Your task to perform on an android device: Do I have any events today? Image 0: 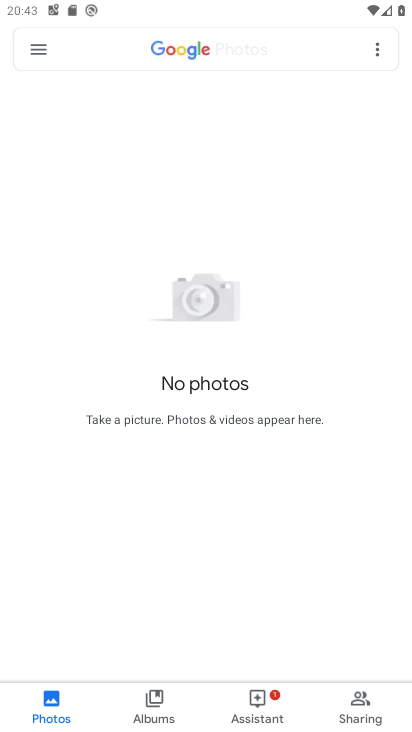
Step 0: press home button
Your task to perform on an android device: Do I have any events today? Image 1: 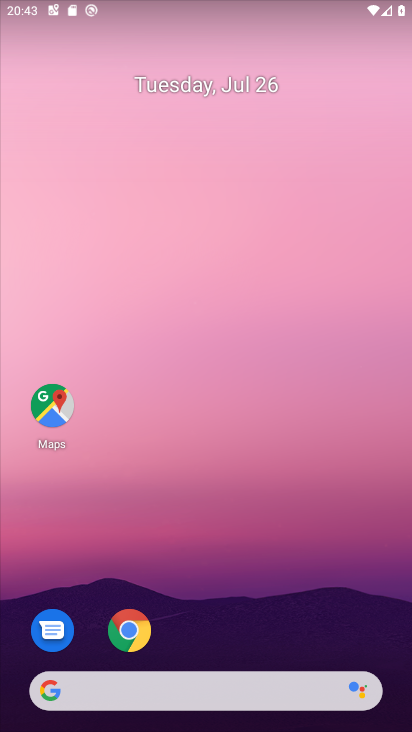
Step 1: drag from (389, 678) to (307, 65)
Your task to perform on an android device: Do I have any events today? Image 2: 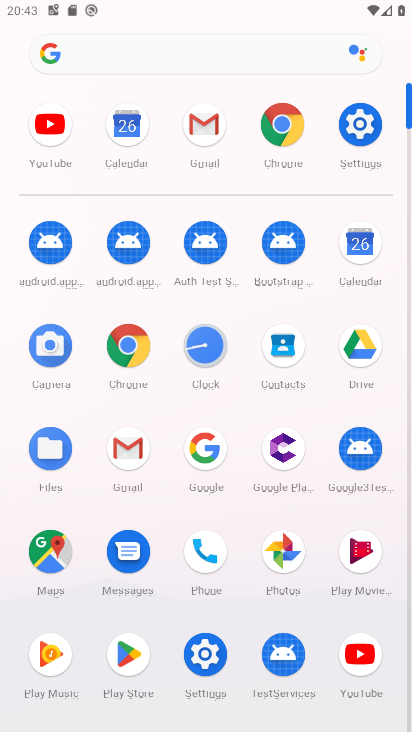
Step 2: click (361, 249)
Your task to perform on an android device: Do I have any events today? Image 3: 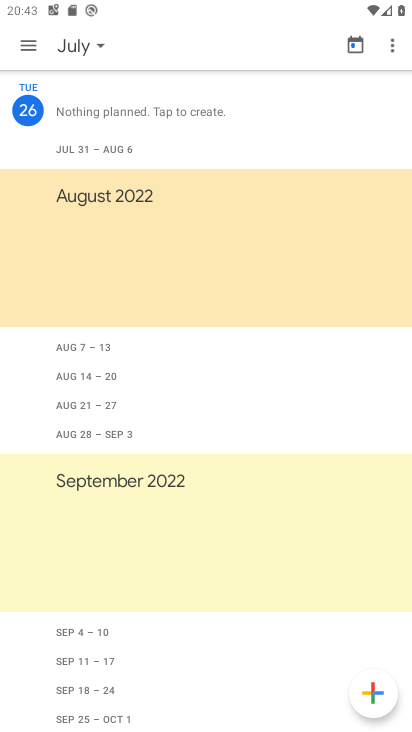
Step 3: click (28, 41)
Your task to perform on an android device: Do I have any events today? Image 4: 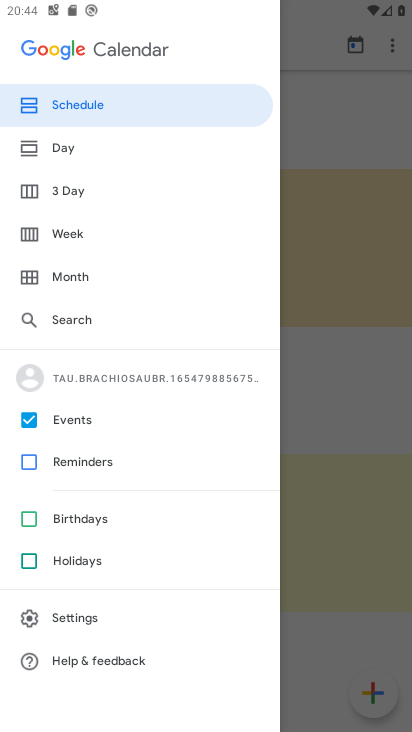
Step 4: click (52, 142)
Your task to perform on an android device: Do I have any events today? Image 5: 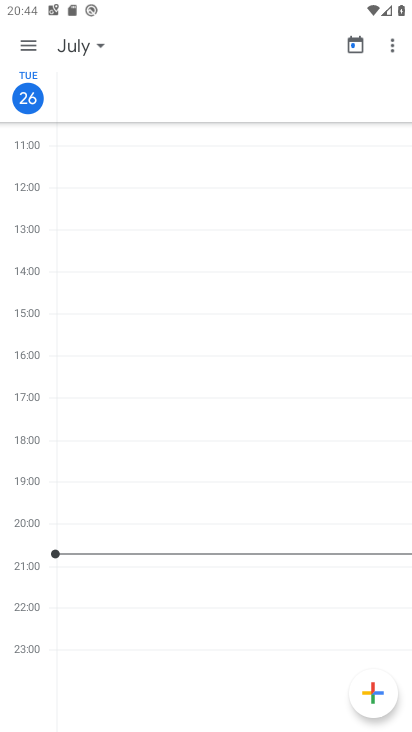
Step 5: click (31, 36)
Your task to perform on an android device: Do I have any events today? Image 6: 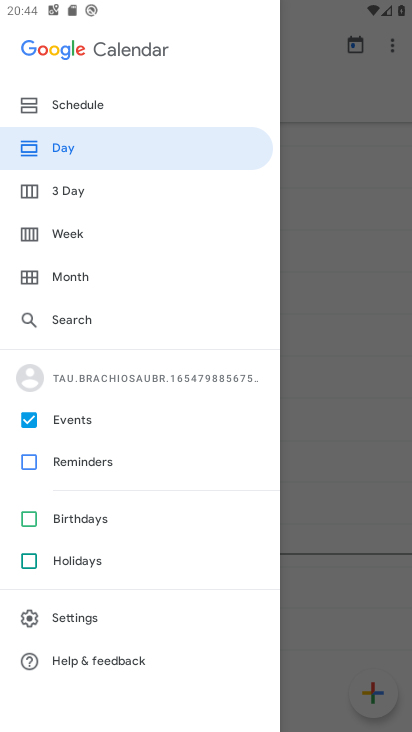
Step 6: click (76, 100)
Your task to perform on an android device: Do I have any events today? Image 7: 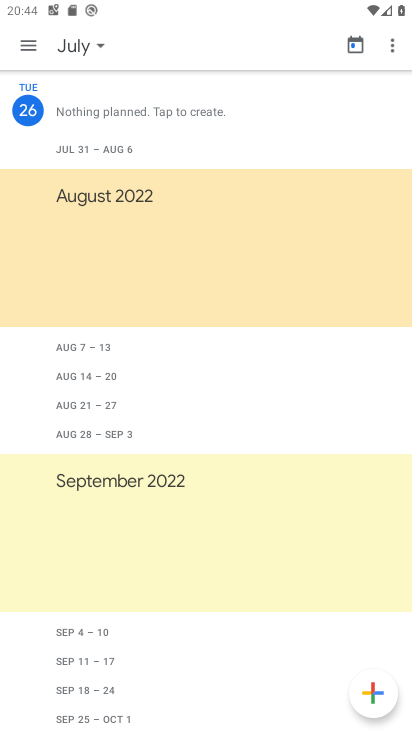
Step 7: task complete